Your task to perform on an android device: toggle location history Image 0: 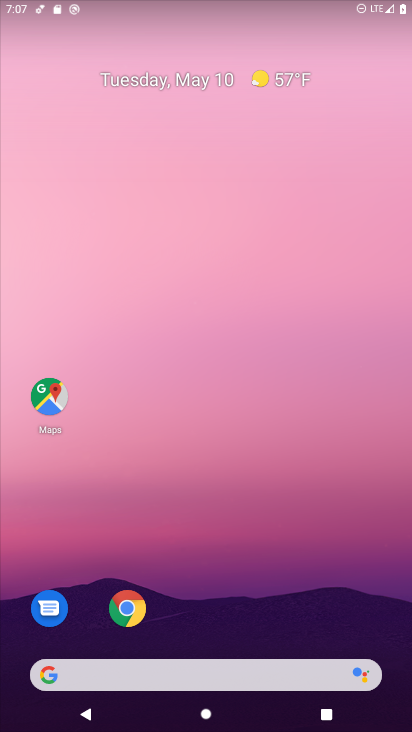
Step 0: drag from (342, 582) to (330, 38)
Your task to perform on an android device: toggle location history Image 1: 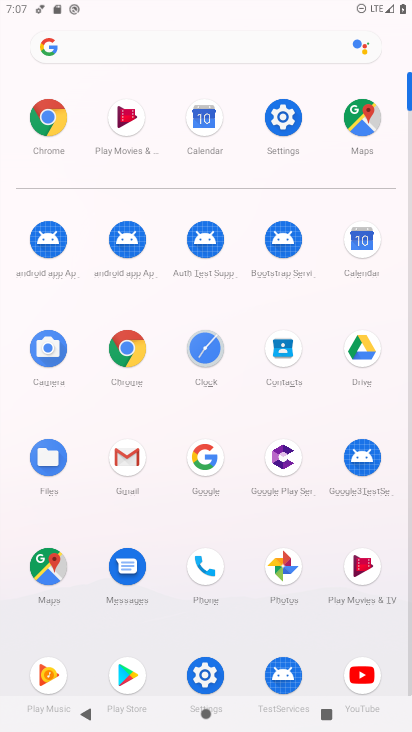
Step 1: click (279, 129)
Your task to perform on an android device: toggle location history Image 2: 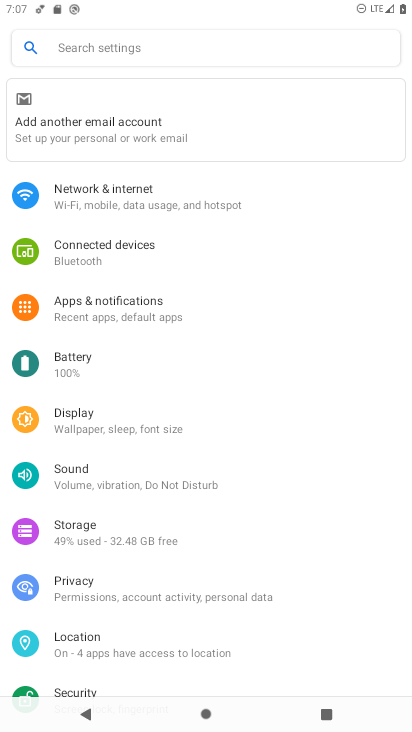
Step 2: click (84, 646)
Your task to perform on an android device: toggle location history Image 3: 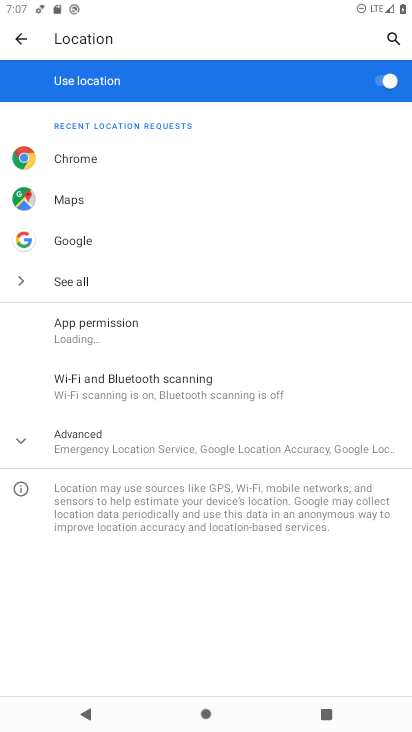
Step 3: click (62, 451)
Your task to perform on an android device: toggle location history Image 4: 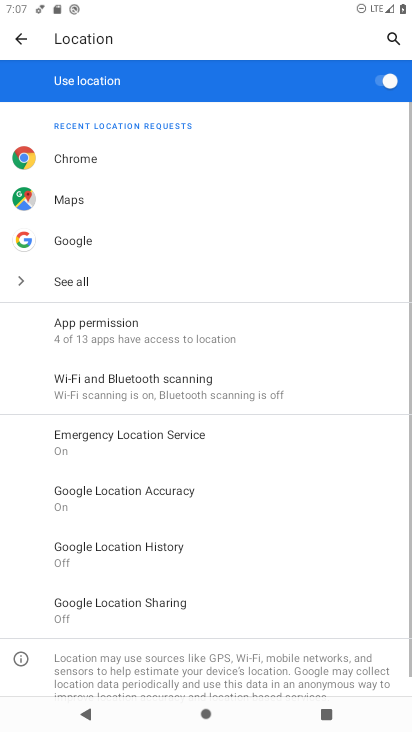
Step 4: click (112, 548)
Your task to perform on an android device: toggle location history Image 5: 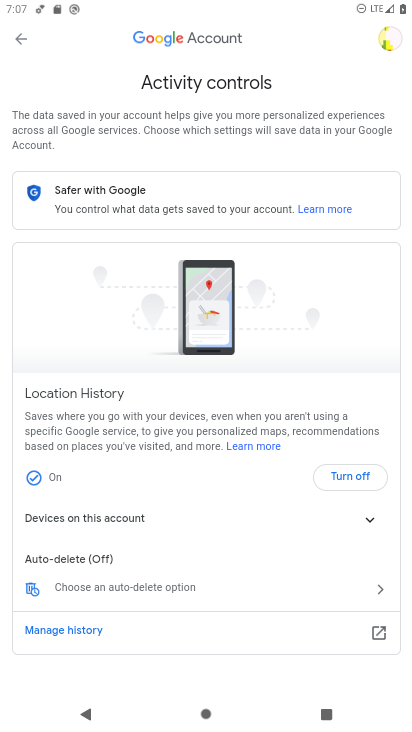
Step 5: click (347, 476)
Your task to perform on an android device: toggle location history Image 6: 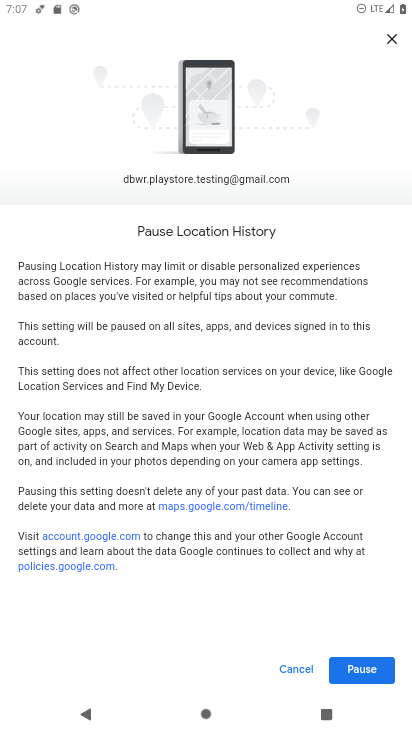
Step 6: task complete